Your task to perform on an android device: Do I have any events tomorrow? Image 0: 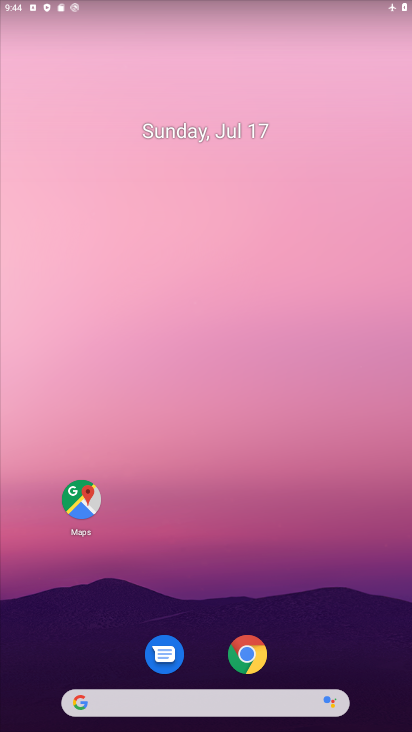
Step 0: drag from (214, 624) to (223, 194)
Your task to perform on an android device: Do I have any events tomorrow? Image 1: 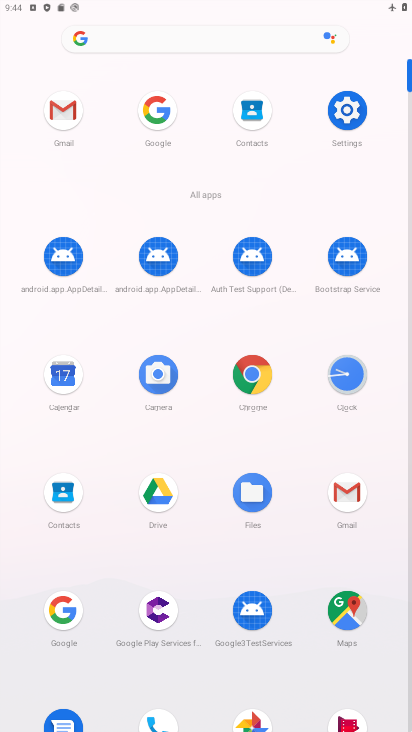
Step 1: click (58, 380)
Your task to perform on an android device: Do I have any events tomorrow? Image 2: 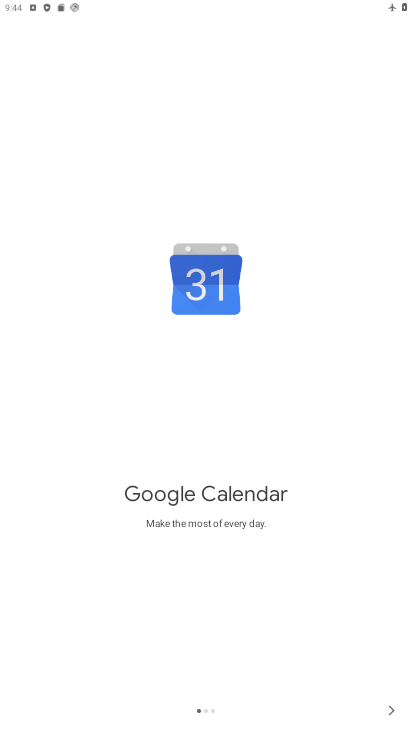
Step 2: click (384, 694)
Your task to perform on an android device: Do I have any events tomorrow? Image 3: 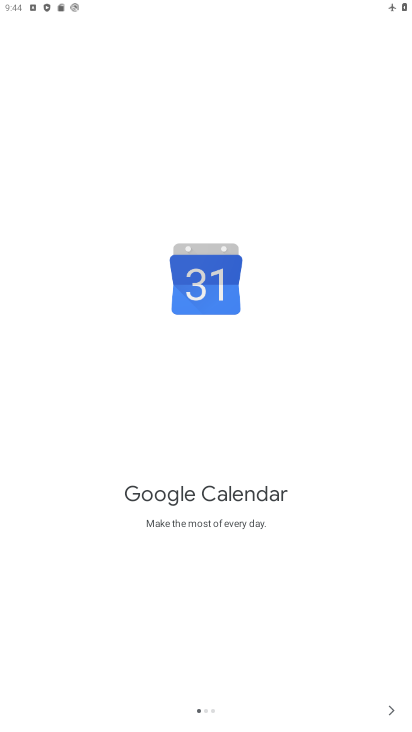
Step 3: click (382, 696)
Your task to perform on an android device: Do I have any events tomorrow? Image 4: 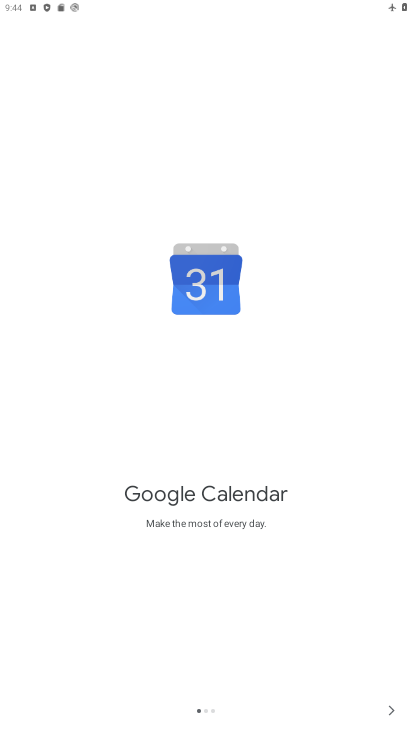
Step 4: click (386, 708)
Your task to perform on an android device: Do I have any events tomorrow? Image 5: 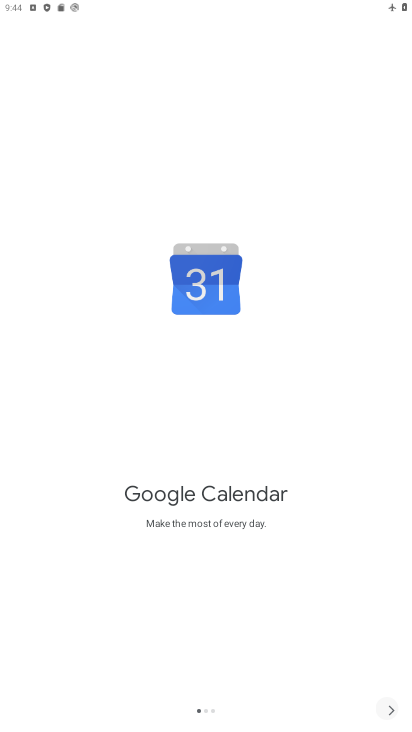
Step 5: click (385, 709)
Your task to perform on an android device: Do I have any events tomorrow? Image 6: 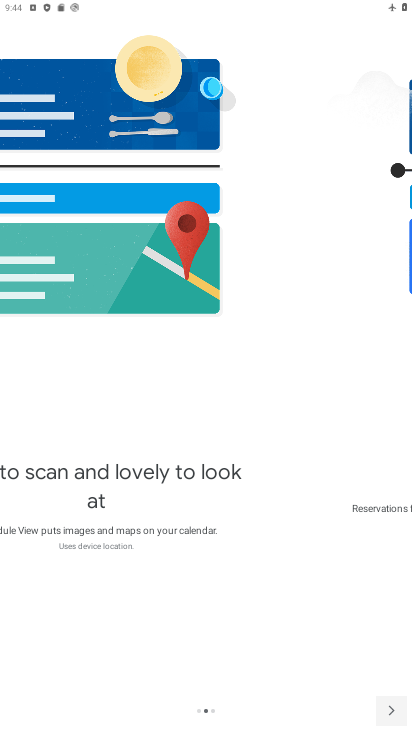
Step 6: click (385, 709)
Your task to perform on an android device: Do I have any events tomorrow? Image 7: 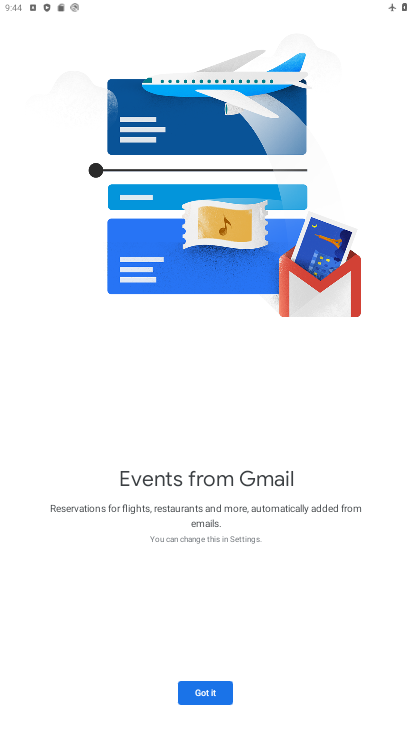
Step 7: click (184, 687)
Your task to perform on an android device: Do I have any events tomorrow? Image 8: 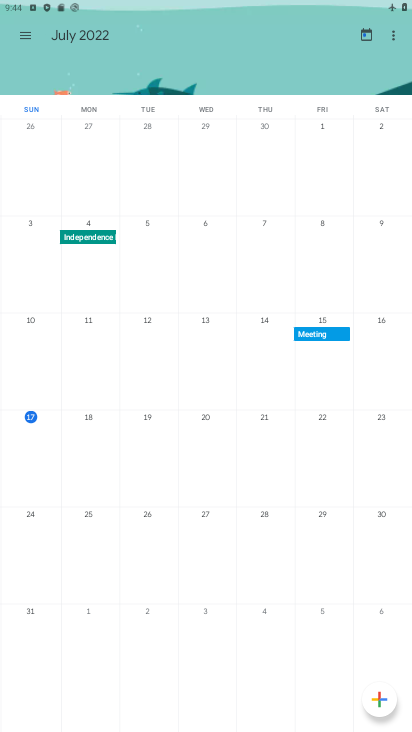
Step 8: click (26, 29)
Your task to perform on an android device: Do I have any events tomorrow? Image 9: 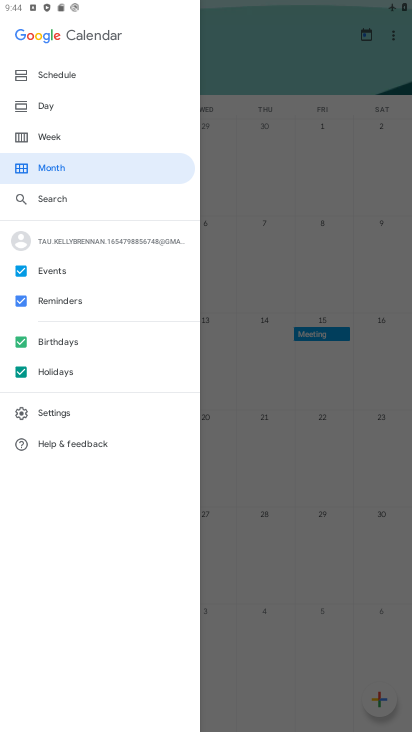
Step 9: click (86, 81)
Your task to perform on an android device: Do I have any events tomorrow? Image 10: 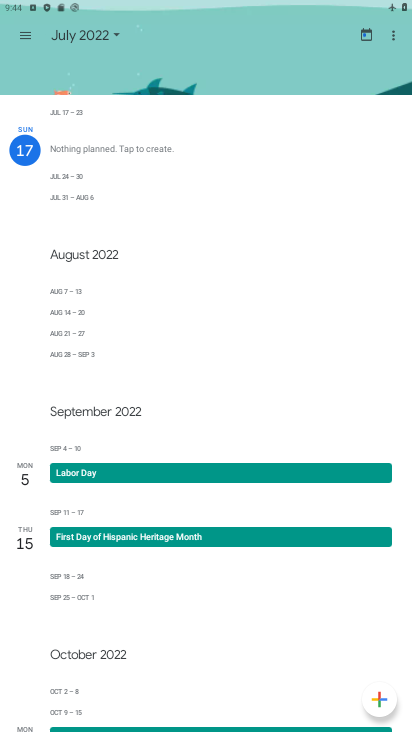
Step 10: click (34, 33)
Your task to perform on an android device: Do I have any events tomorrow? Image 11: 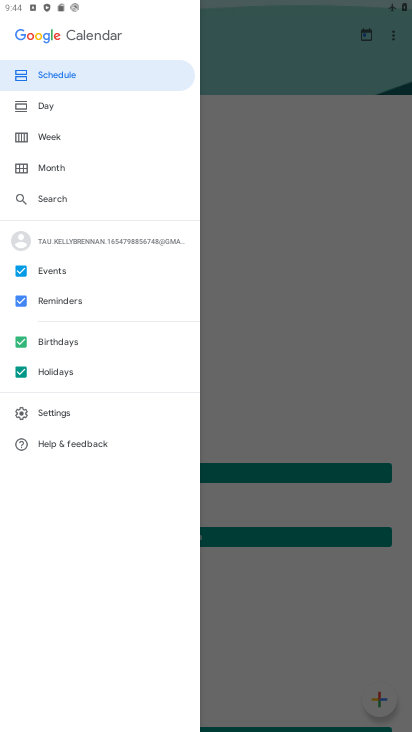
Step 11: click (305, 226)
Your task to perform on an android device: Do I have any events tomorrow? Image 12: 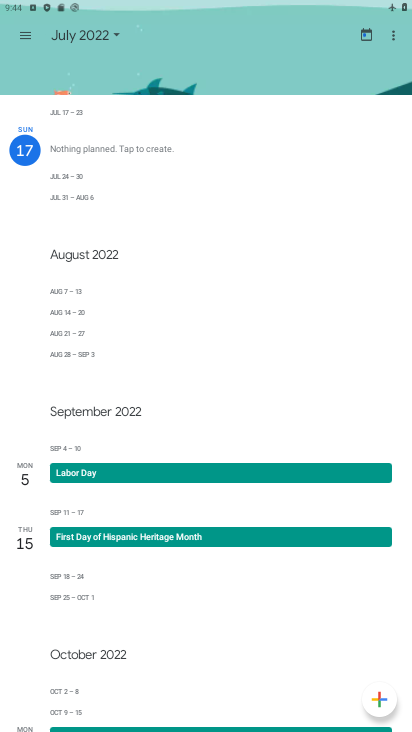
Step 12: task complete